Your task to perform on an android device: Go to calendar. Show me events next week Image 0: 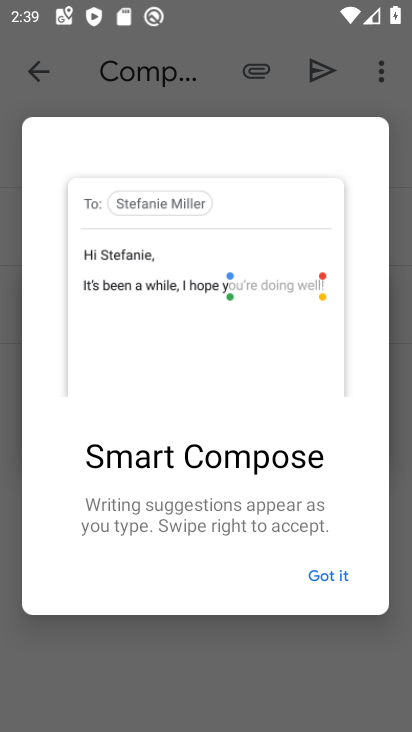
Step 0: press home button
Your task to perform on an android device: Go to calendar. Show me events next week Image 1: 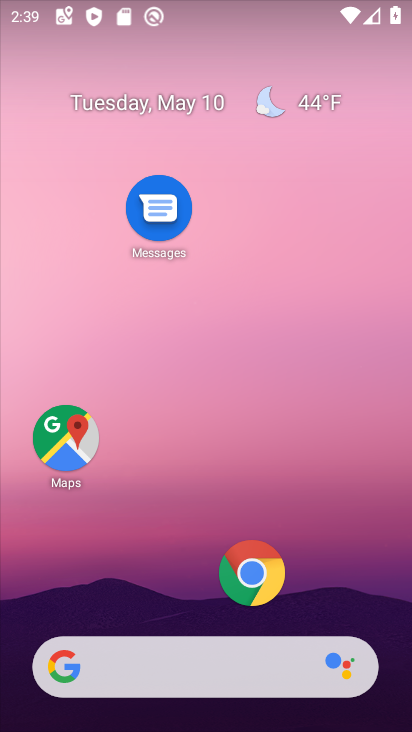
Step 1: drag from (195, 610) to (196, 245)
Your task to perform on an android device: Go to calendar. Show me events next week Image 2: 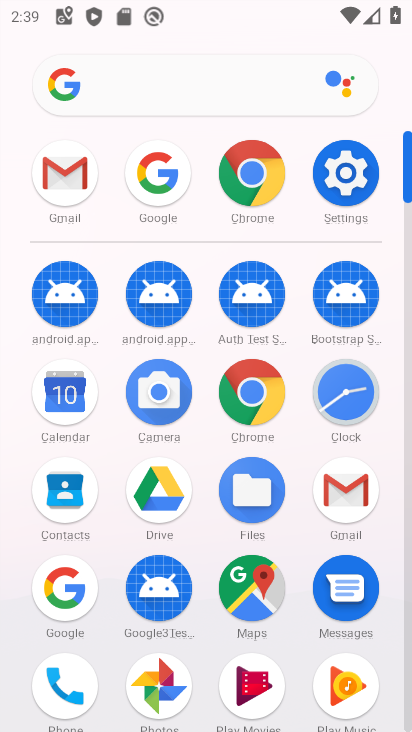
Step 2: click (68, 422)
Your task to perform on an android device: Go to calendar. Show me events next week Image 3: 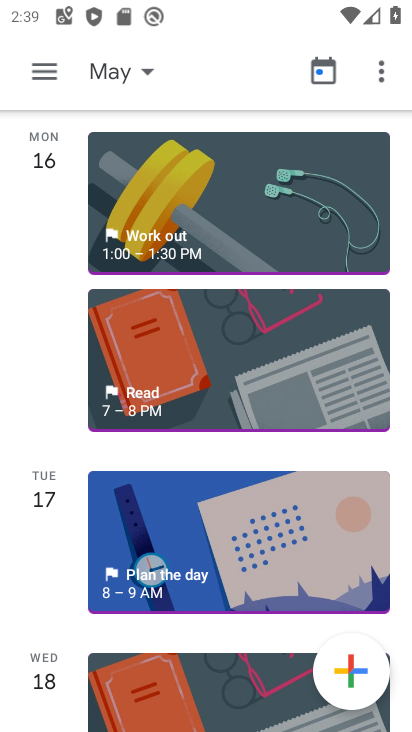
Step 3: click (148, 78)
Your task to perform on an android device: Go to calendar. Show me events next week Image 4: 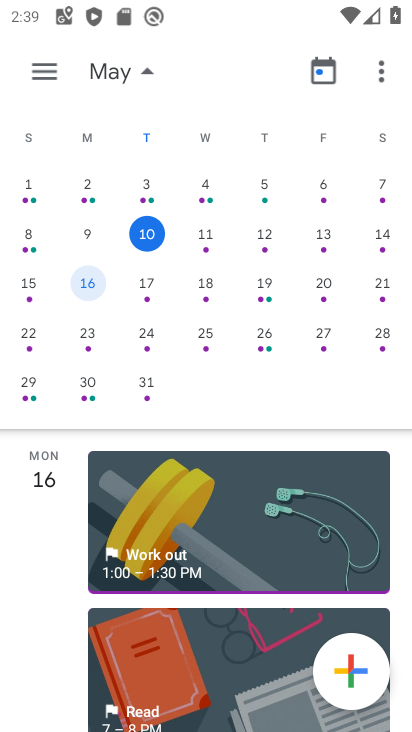
Step 4: click (142, 276)
Your task to perform on an android device: Go to calendar. Show me events next week Image 5: 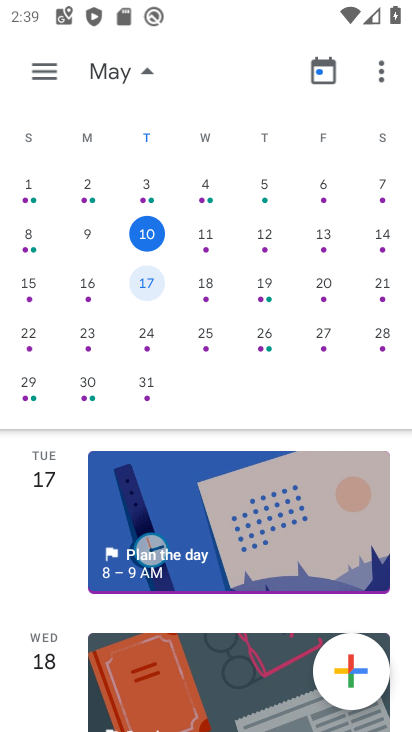
Step 5: click (259, 292)
Your task to perform on an android device: Go to calendar. Show me events next week Image 6: 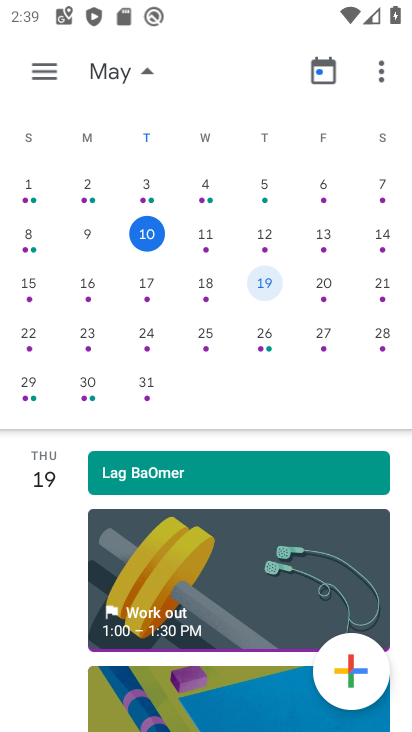
Step 6: task complete